Your task to perform on an android device: change notification settings in the gmail app Image 0: 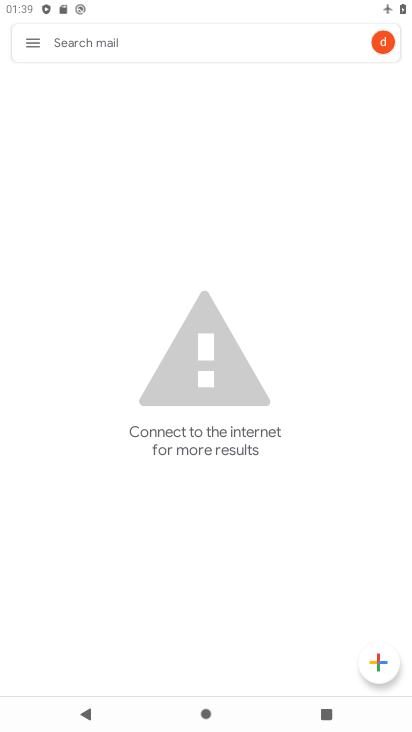
Step 0: press home button
Your task to perform on an android device: change notification settings in the gmail app Image 1: 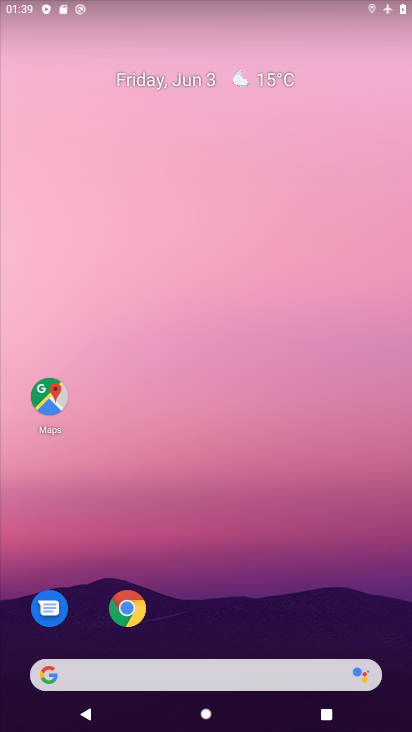
Step 1: drag from (289, 528) to (273, 197)
Your task to perform on an android device: change notification settings in the gmail app Image 2: 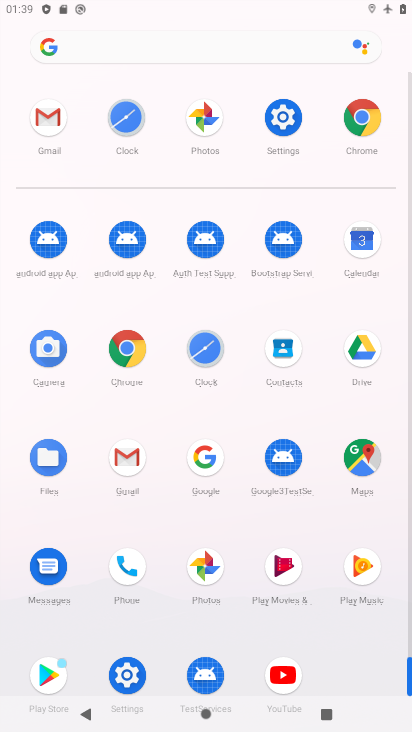
Step 2: click (279, 118)
Your task to perform on an android device: change notification settings in the gmail app Image 3: 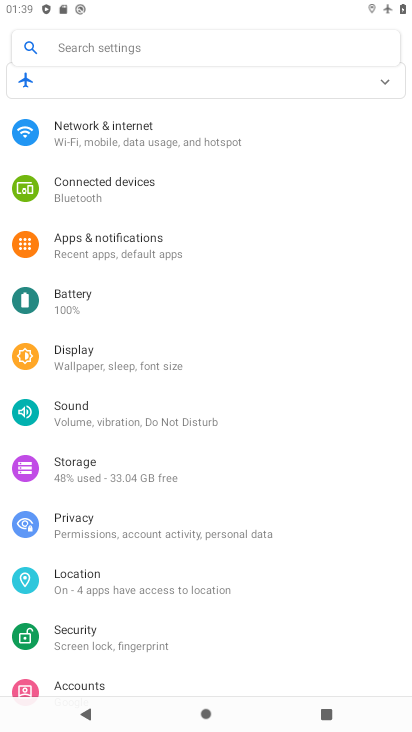
Step 3: click (169, 249)
Your task to perform on an android device: change notification settings in the gmail app Image 4: 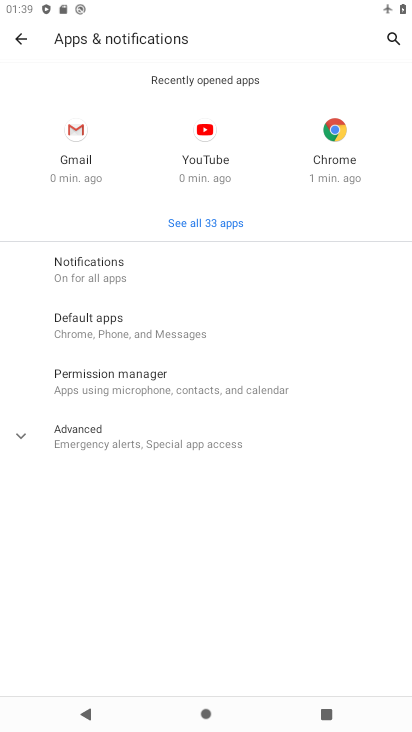
Step 4: click (105, 259)
Your task to perform on an android device: change notification settings in the gmail app Image 5: 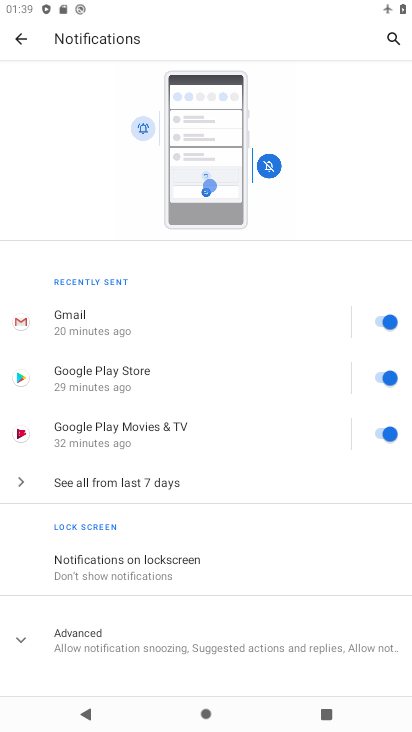
Step 5: task complete